Your task to perform on an android device: delete the emails in spam in the gmail app Image 0: 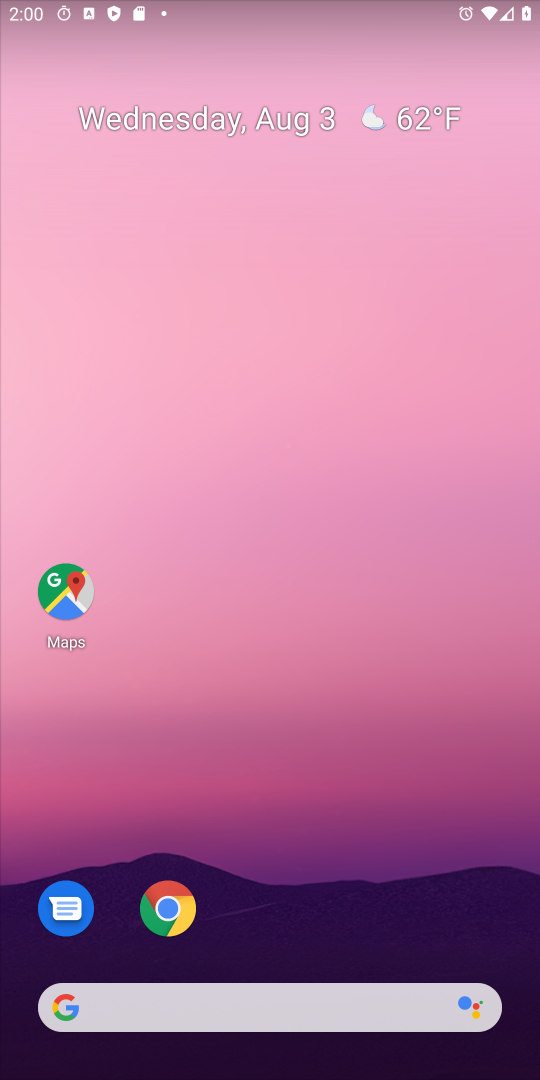
Step 0: drag from (318, 719) to (250, 22)
Your task to perform on an android device: delete the emails in spam in the gmail app Image 1: 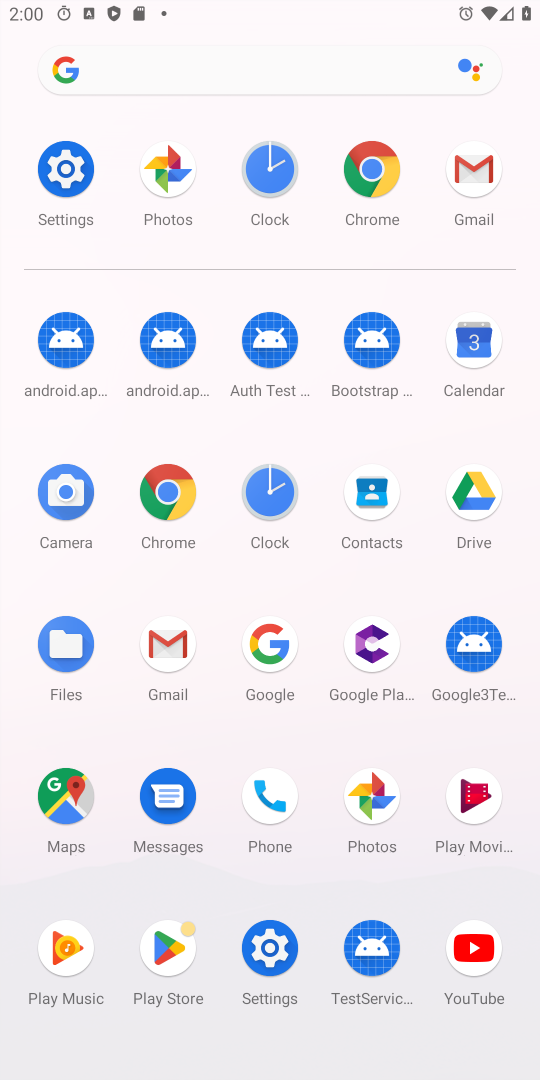
Step 1: click (166, 670)
Your task to perform on an android device: delete the emails in spam in the gmail app Image 2: 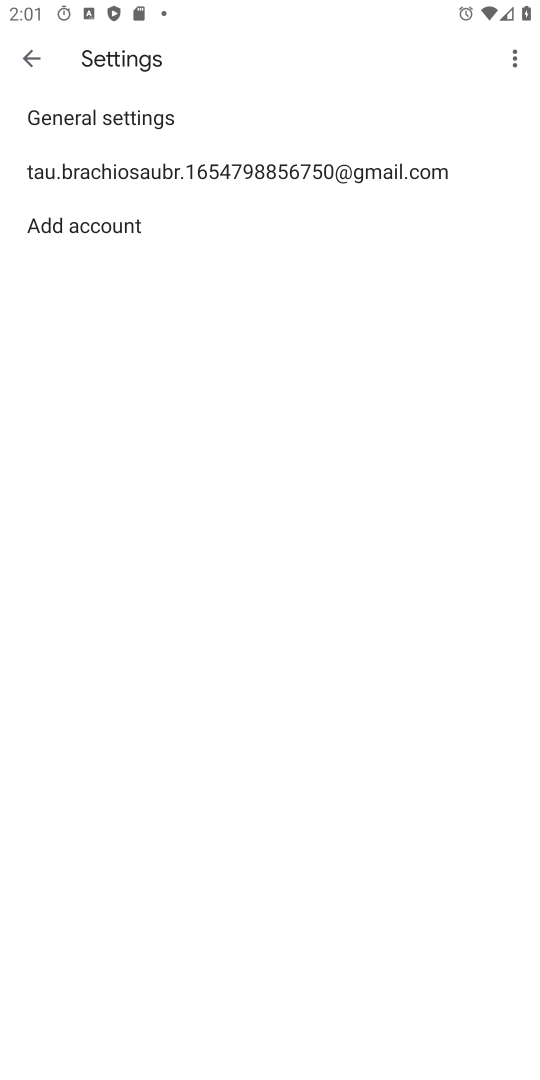
Step 2: press back button
Your task to perform on an android device: delete the emails in spam in the gmail app Image 3: 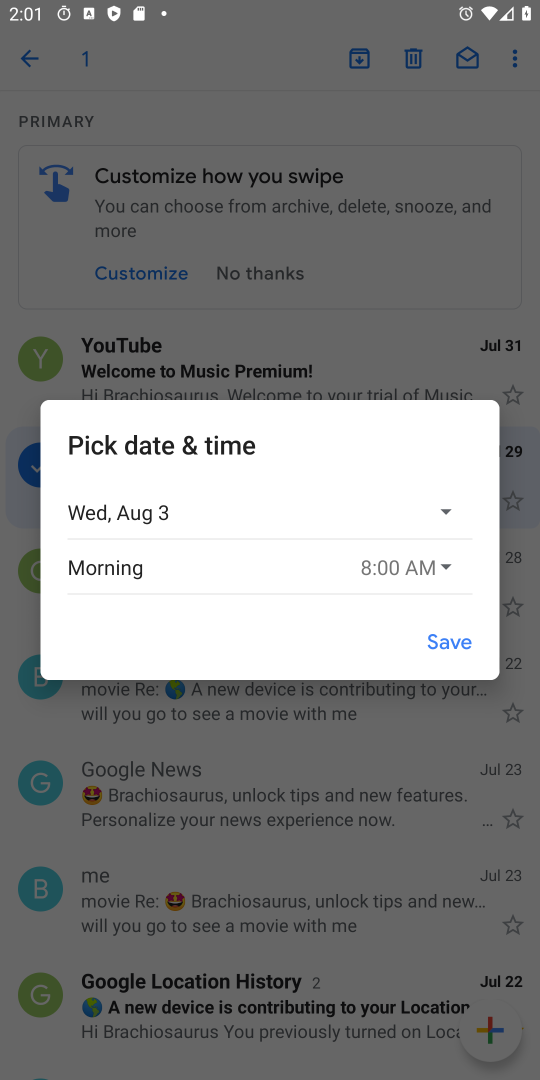
Step 3: click (443, 638)
Your task to perform on an android device: delete the emails in spam in the gmail app Image 4: 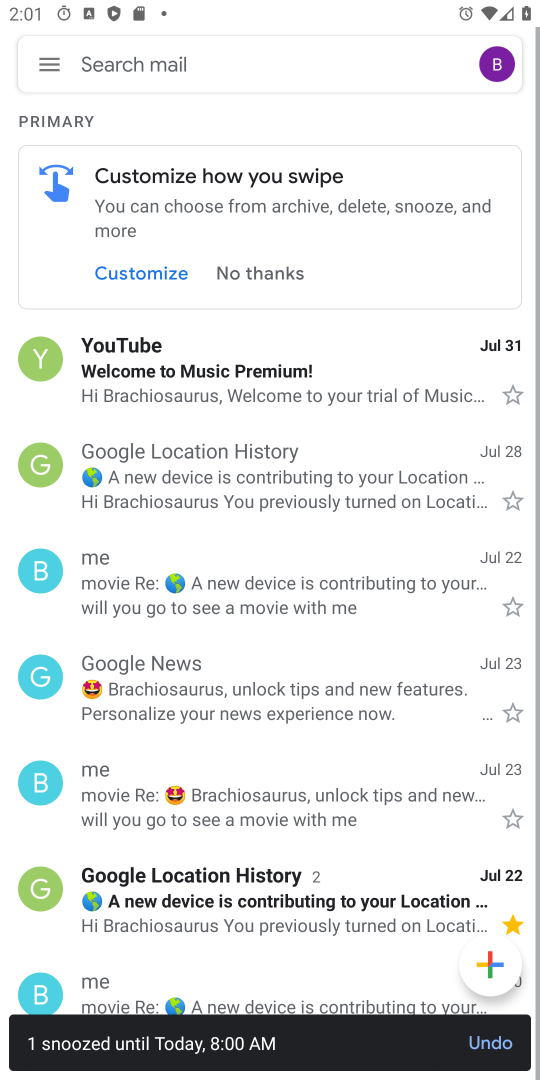
Step 4: click (38, 52)
Your task to perform on an android device: delete the emails in spam in the gmail app Image 5: 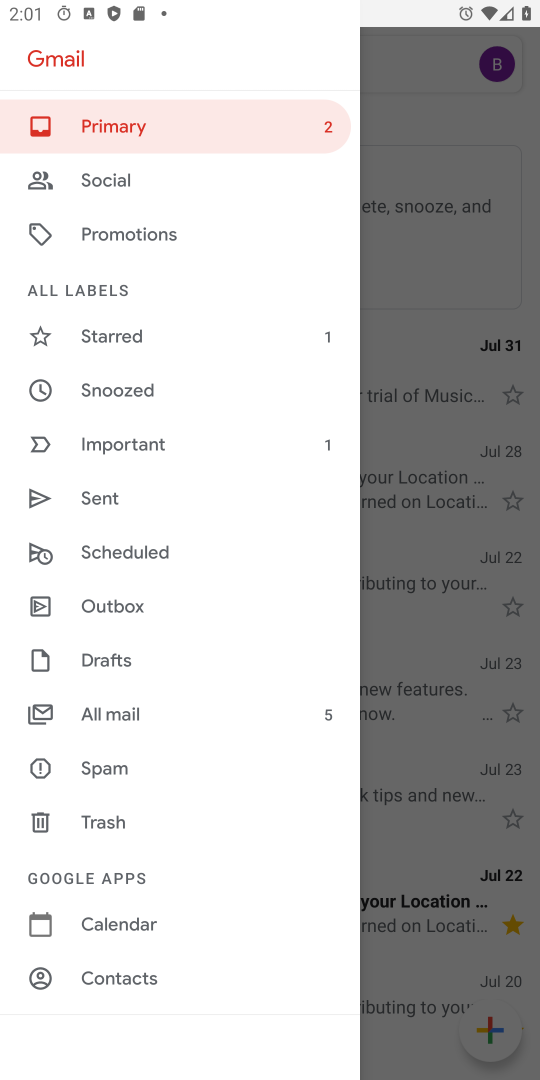
Step 5: click (142, 779)
Your task to perform on an android device: delete the emails in spam in the gmail app Image 6: 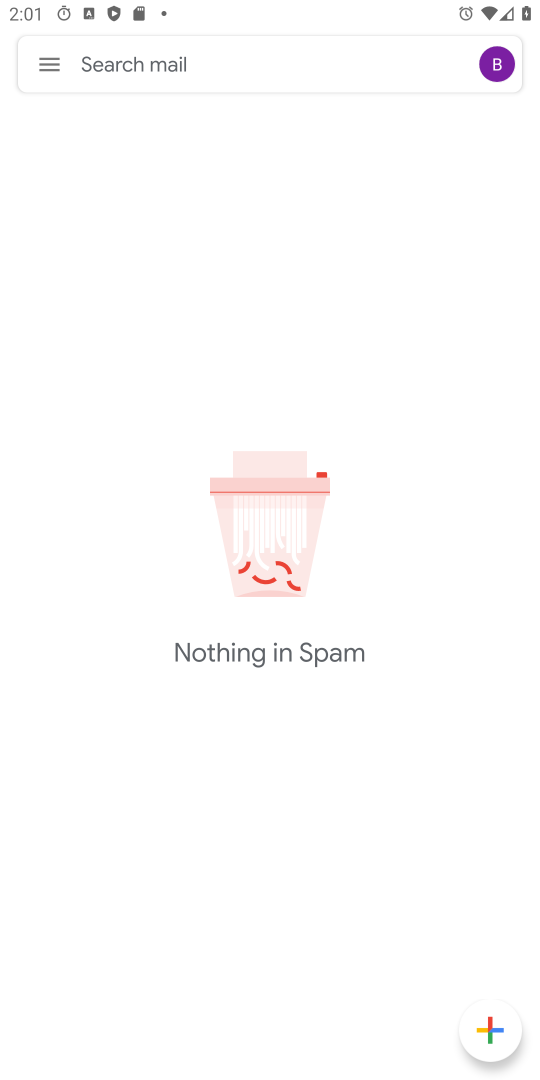
Step 6: task complete